Your task to perform on an android device: Check the latest 3D printers on Target. Image 0: 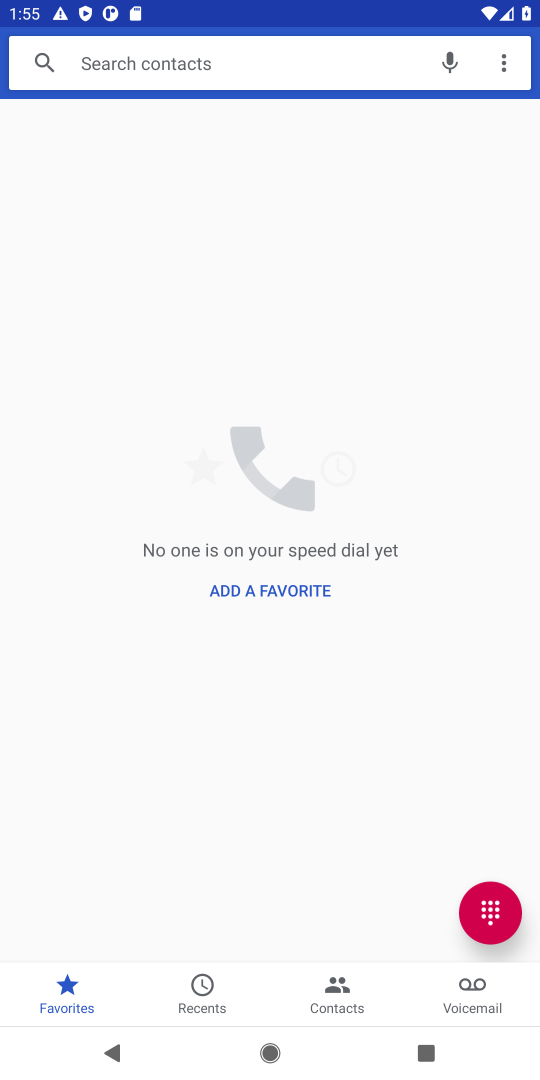
Step 0: press home button
Your task to perform on an android device: Check the latest 3D printers on Target. Image 1: 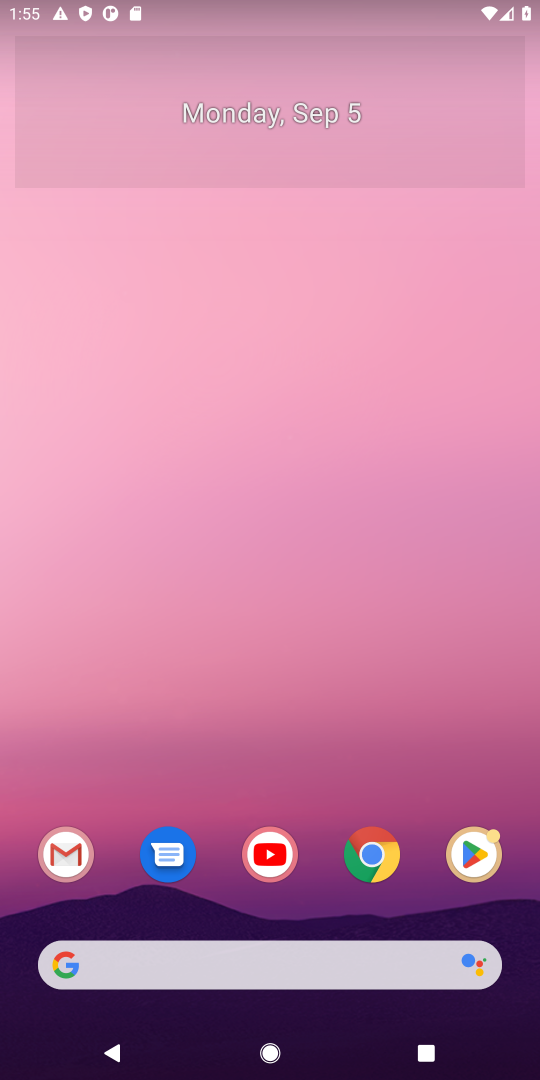
Step 1: click (259, 968)
Your task to perform on an android device: Check the latest 3D printers on Target. Image 2: 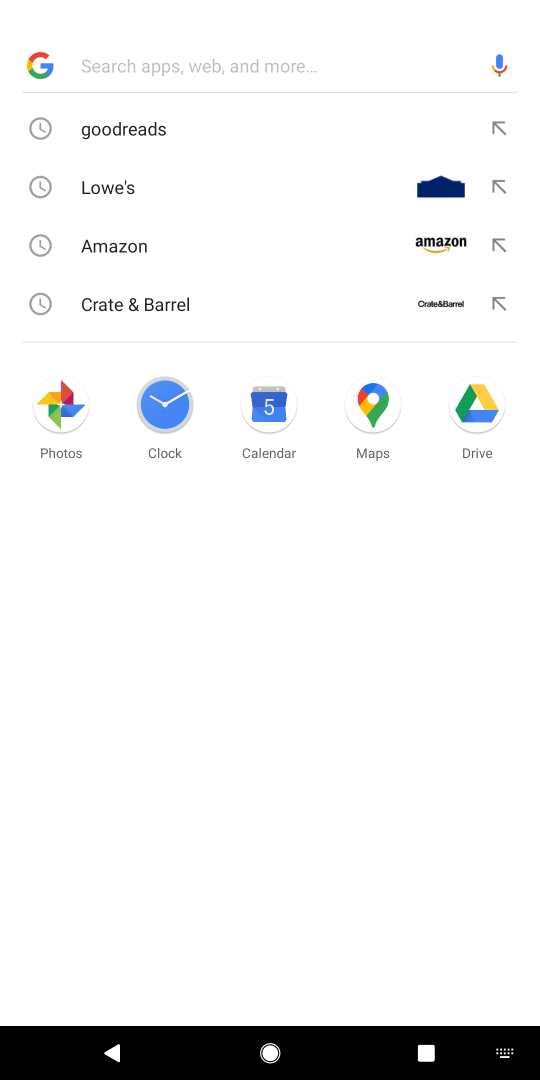
Step 2: type "target"
Your task to perform on an android device: Check the latest 3D printers on Target. Image 3: 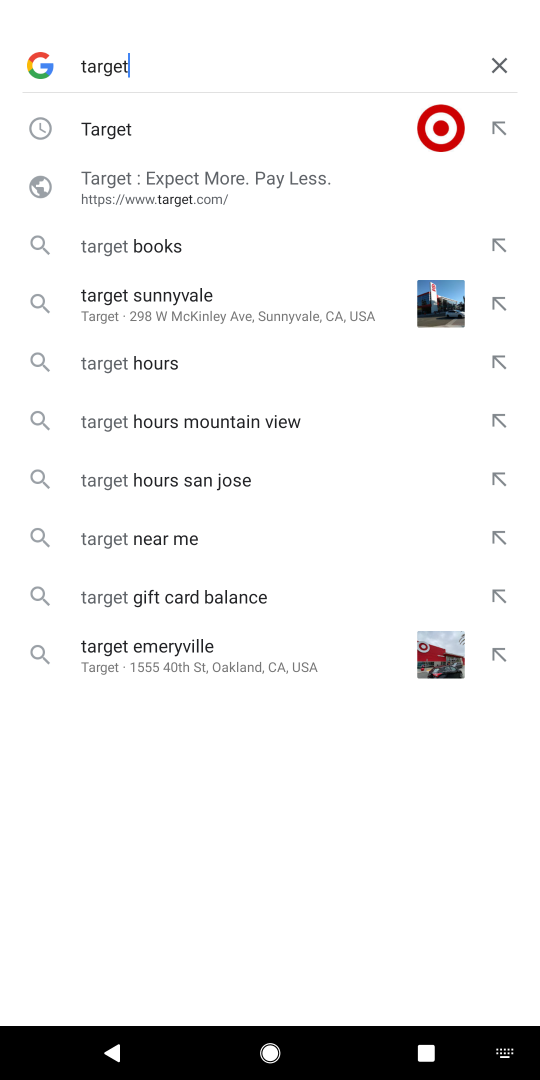
Step 3: press enter
Your task to perform on an android device: Check the latest 3D printers on Target. Image 4: 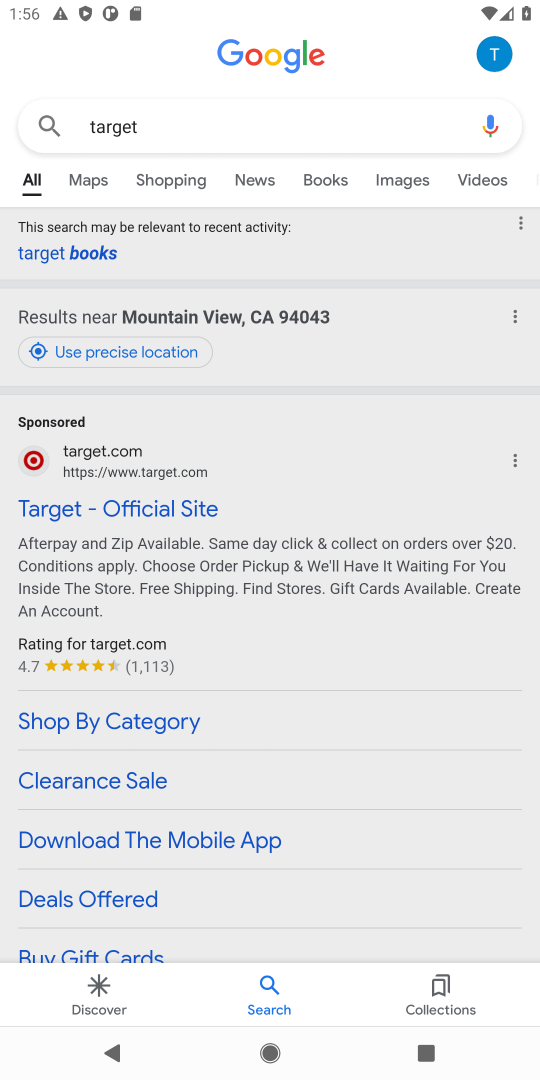
Step 4: click (186, 505)
Your task to perform on an android device: Check the latest 3D printers on Target. Image 5: 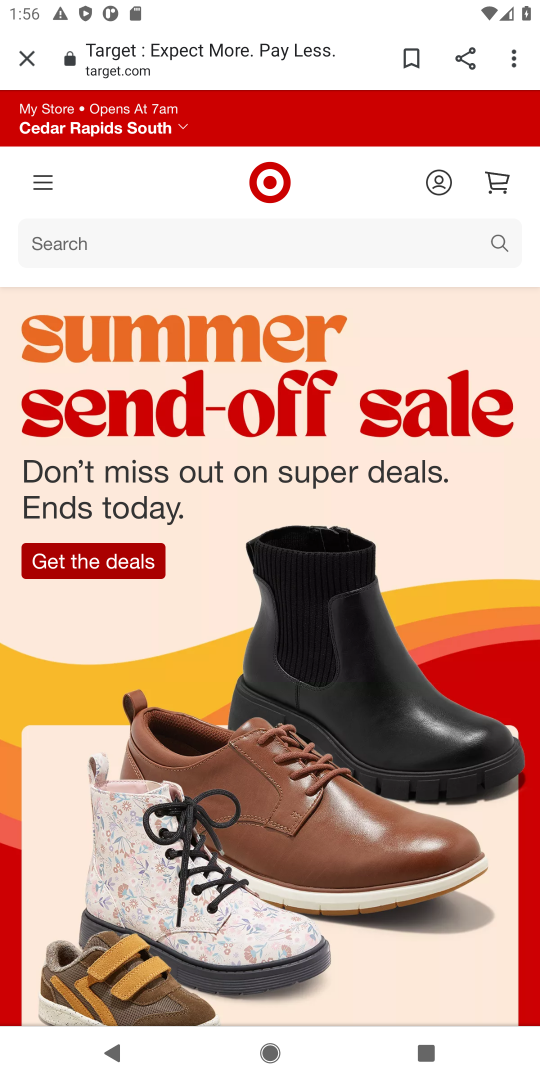
Step 5: click (88, 252)
Your task to perform on an android device: Check the latest 3D printers on Target. Image 6: 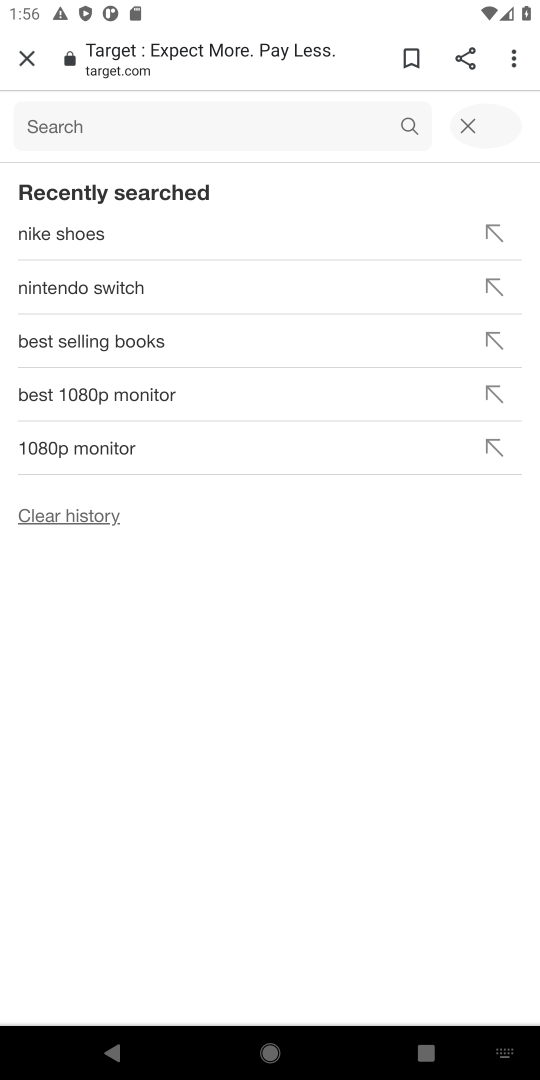
Step 6: type "latest 3d printers"
Your task to perform on an android device: Check the latest 3D printers on Target. Image 7: 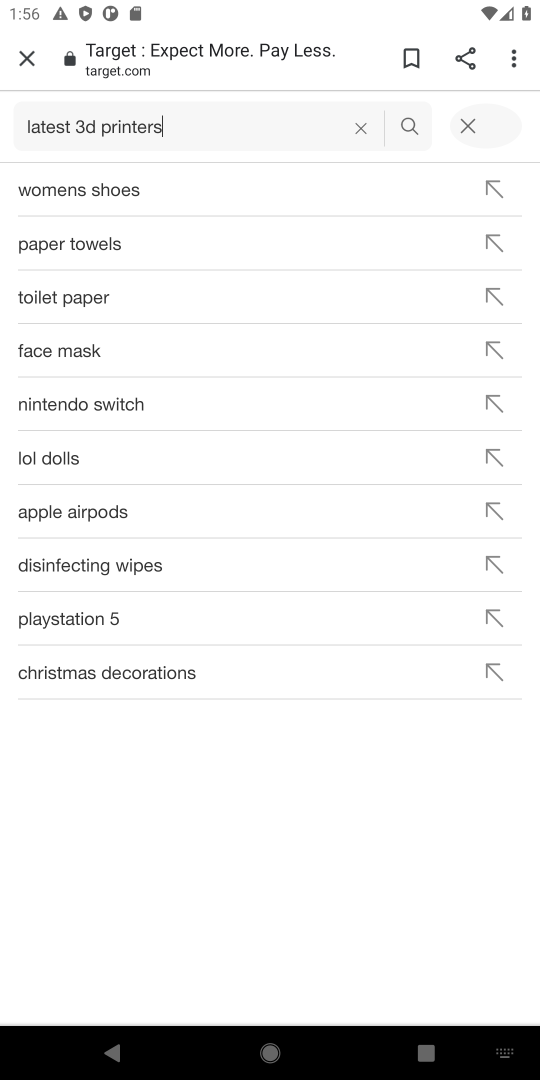
Step 7: press enter
Your task to perform on an android device: Check the latest 3D printers on Target. Image 8: 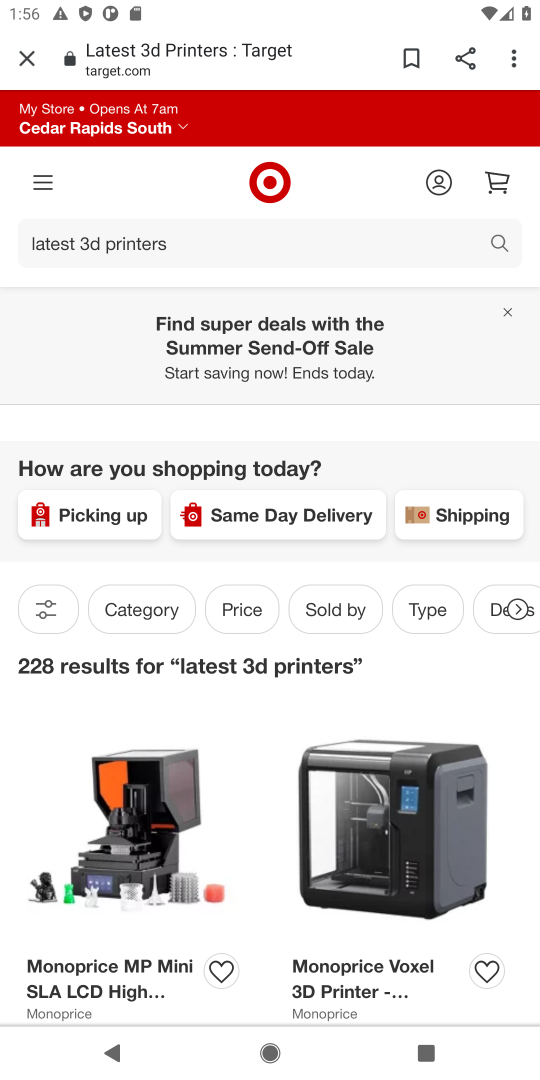
Step 8: task complete